Your task to perform on an android device: Clear all items from cart on bestbuy. Search for acer nitro on bestbuy, select the first entry, and add it to the cart. Image 0: 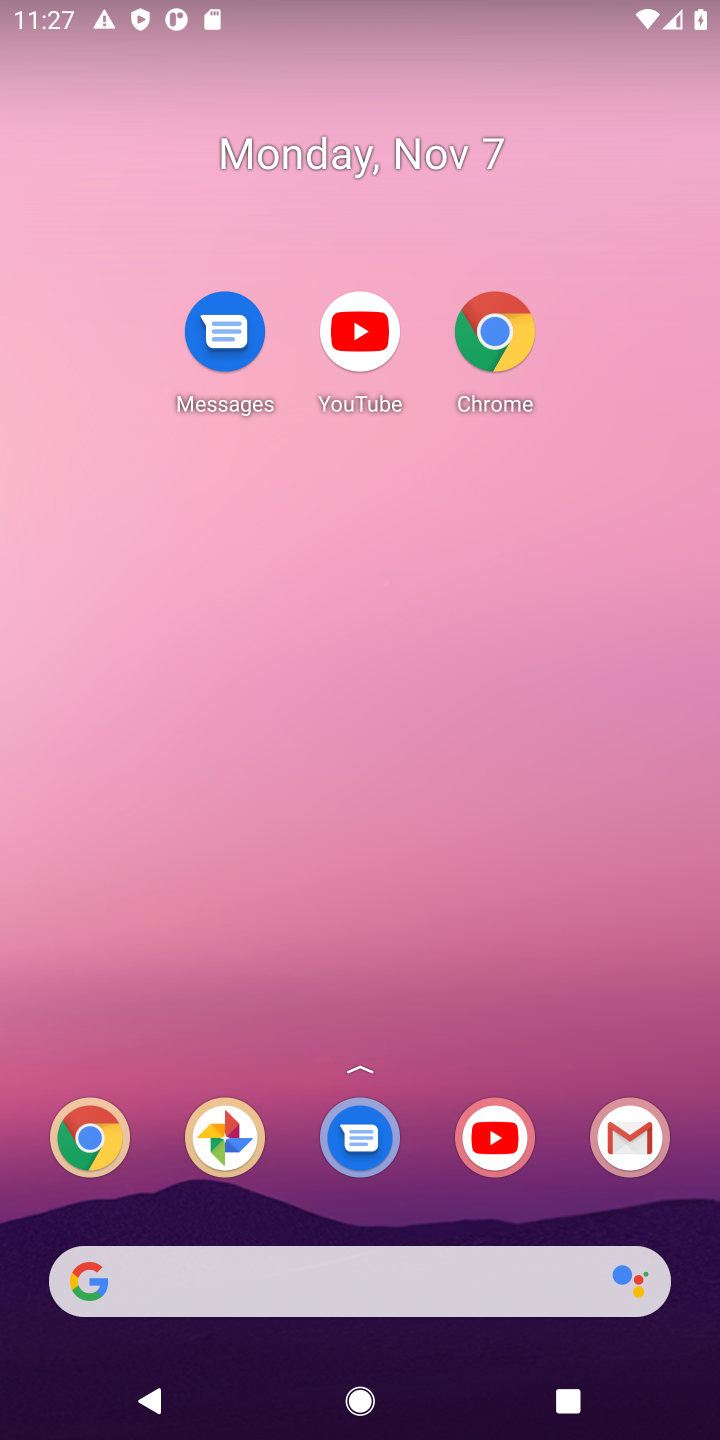
Step 0: drag from (432, 1161) to (385, 235)
Your task to perform on an android device: Clear all items from cart on bestbuy. Search for acer nitro on bestbuy, select the first entry, and add it to the cart. Image 1: 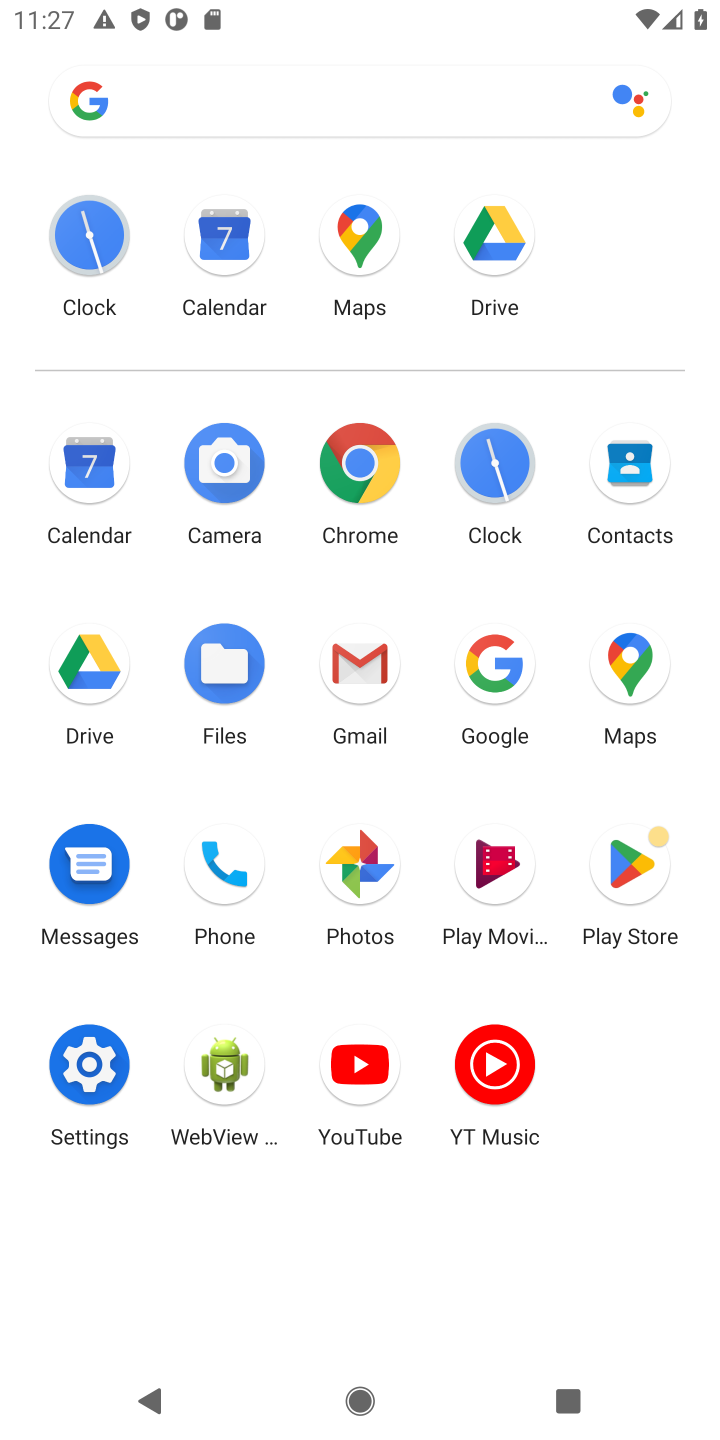
Step 1: click (367, 467)
Your task to perform on an android device: Clear all items from cart on bestbuy. Search for acer nitro on bestbuy, select the first entry, and add it to the cart. Image 2: 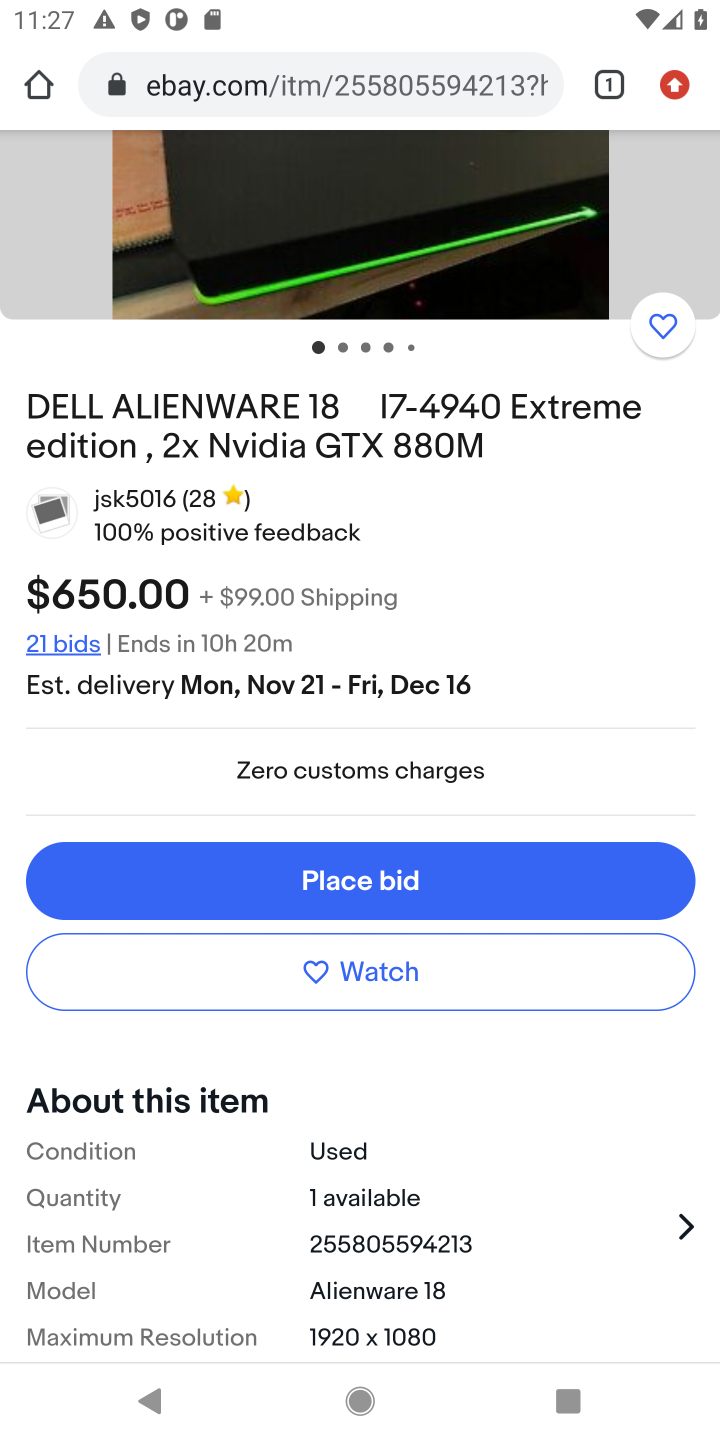
Step 2: click (423, 81)
Your task to perform on an android device: Clear all items from cart on bestbuy. Search for acer nitro on bestbuy, select the first entry, and add it to the cart. Image 3: 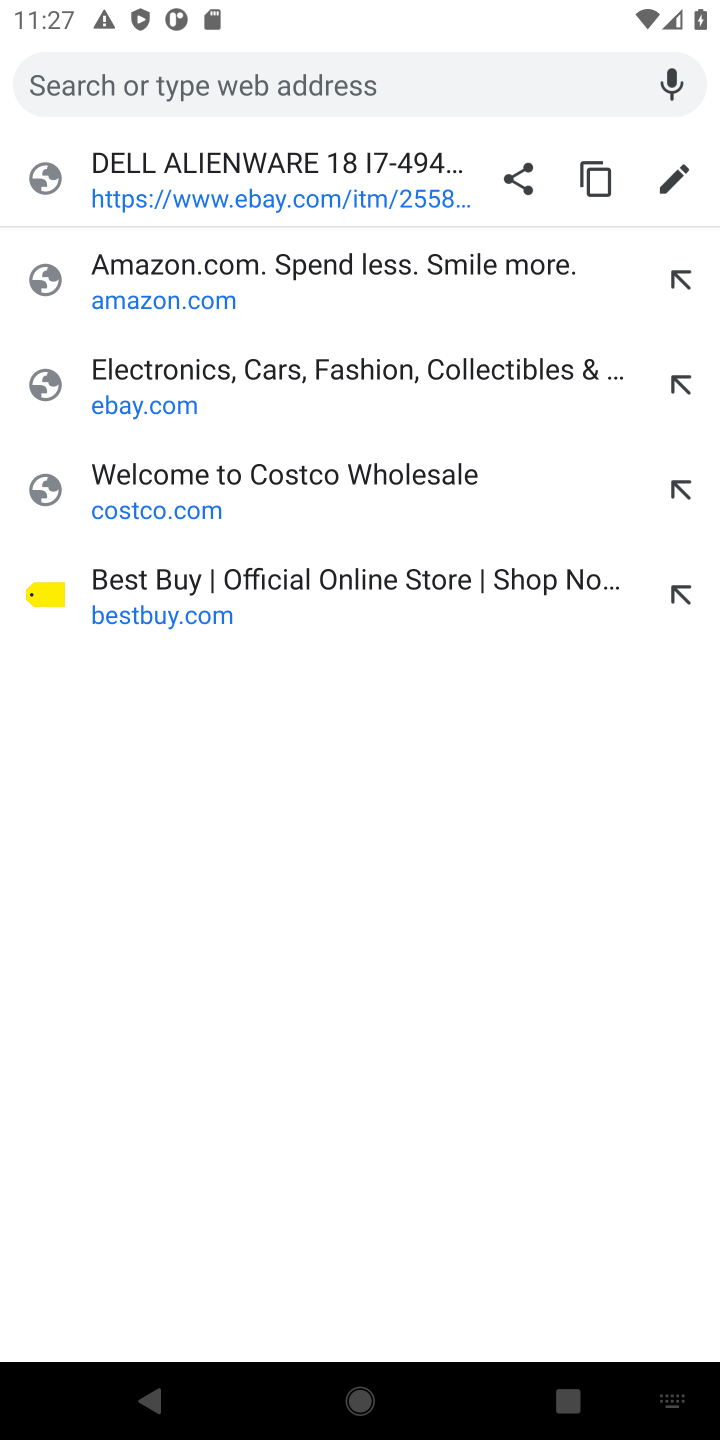
Step 3: type "bestbuy.com"
Your task to perform on an android device: Clear all items from cart on bestbuy. Search for acer nitro on bestbuy, select the first entry, and add it to the cart. Image 4: 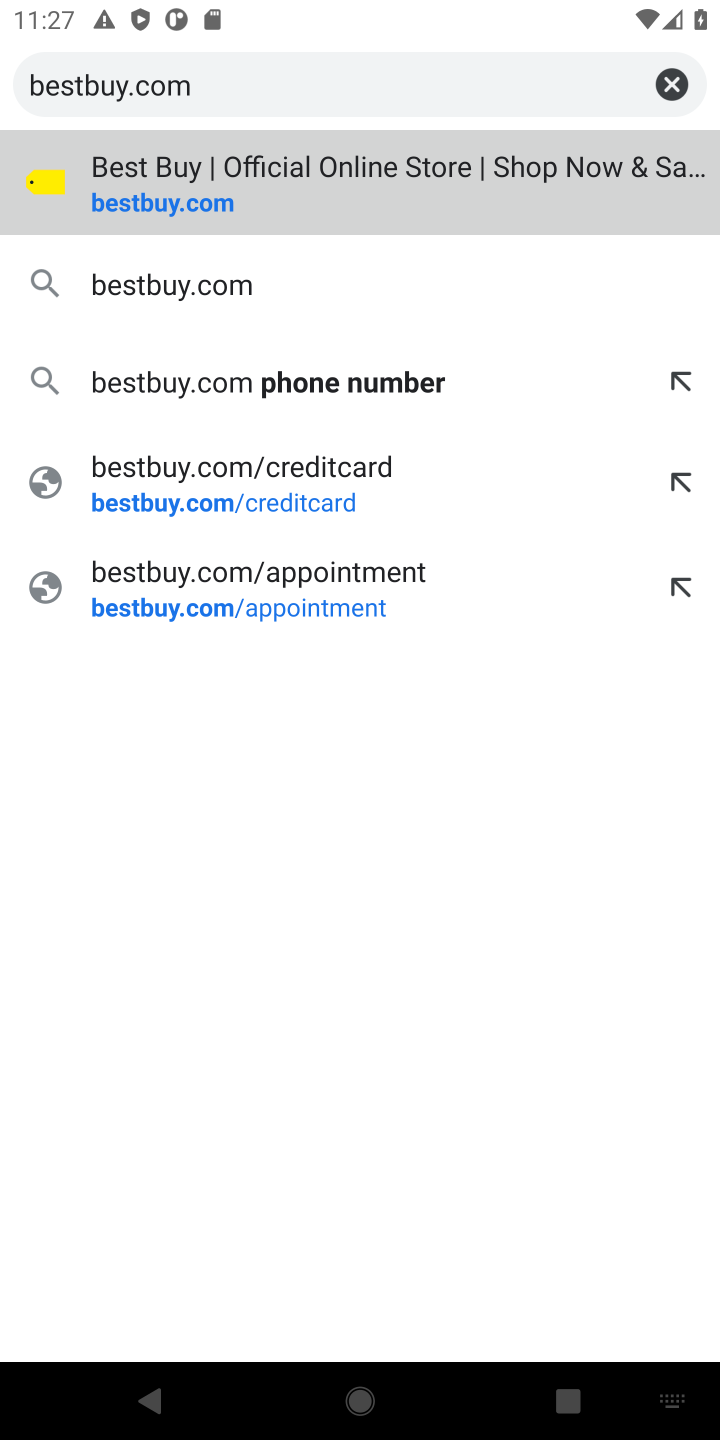
Step 4: press enter
Your task to perform on an android device: Clear all items from cart on bestbuy. Search for acer nitro on bestbuy, select the first entry, and add it to the cart. Image 5: 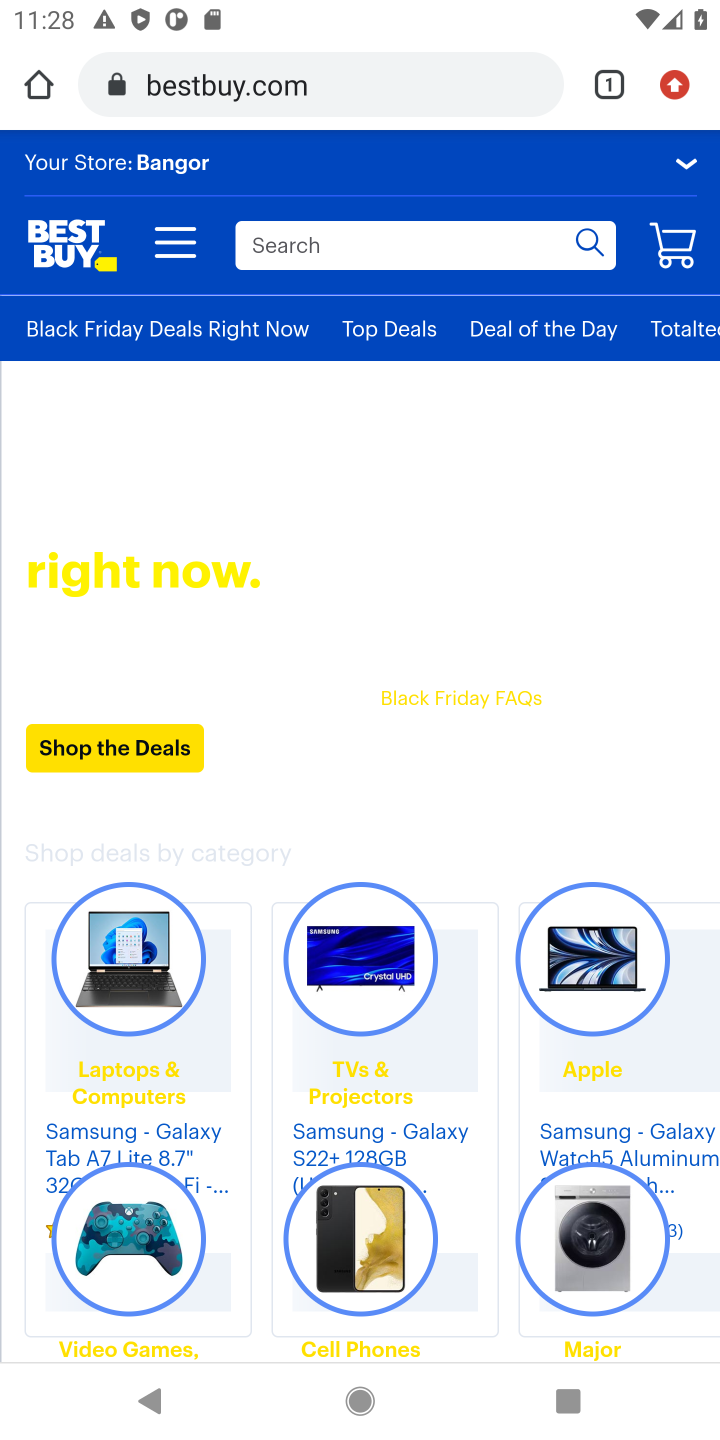
Step 5: click (683, 271)
Your task to perform on an android device: Clear all items from cart on bestbuy. Search for acer nitro on bestbuy, select the first entry, and add it to the cart. Image 6: 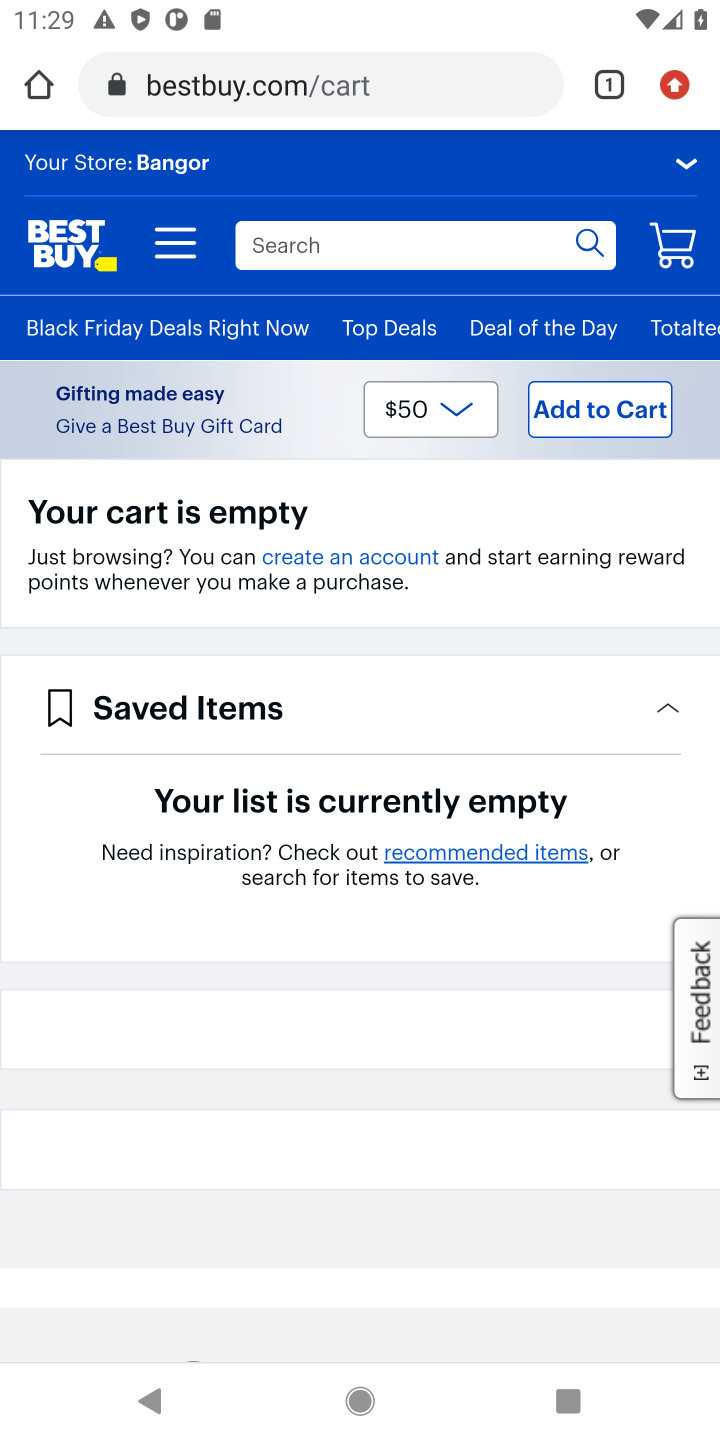
Step 6: click (479, 244)
Your task to perform on an android device: Clear all items from cart on bestbuy. Search for acer nitro on bestbuy, select the first entry, and add it to the cart. Image 7: 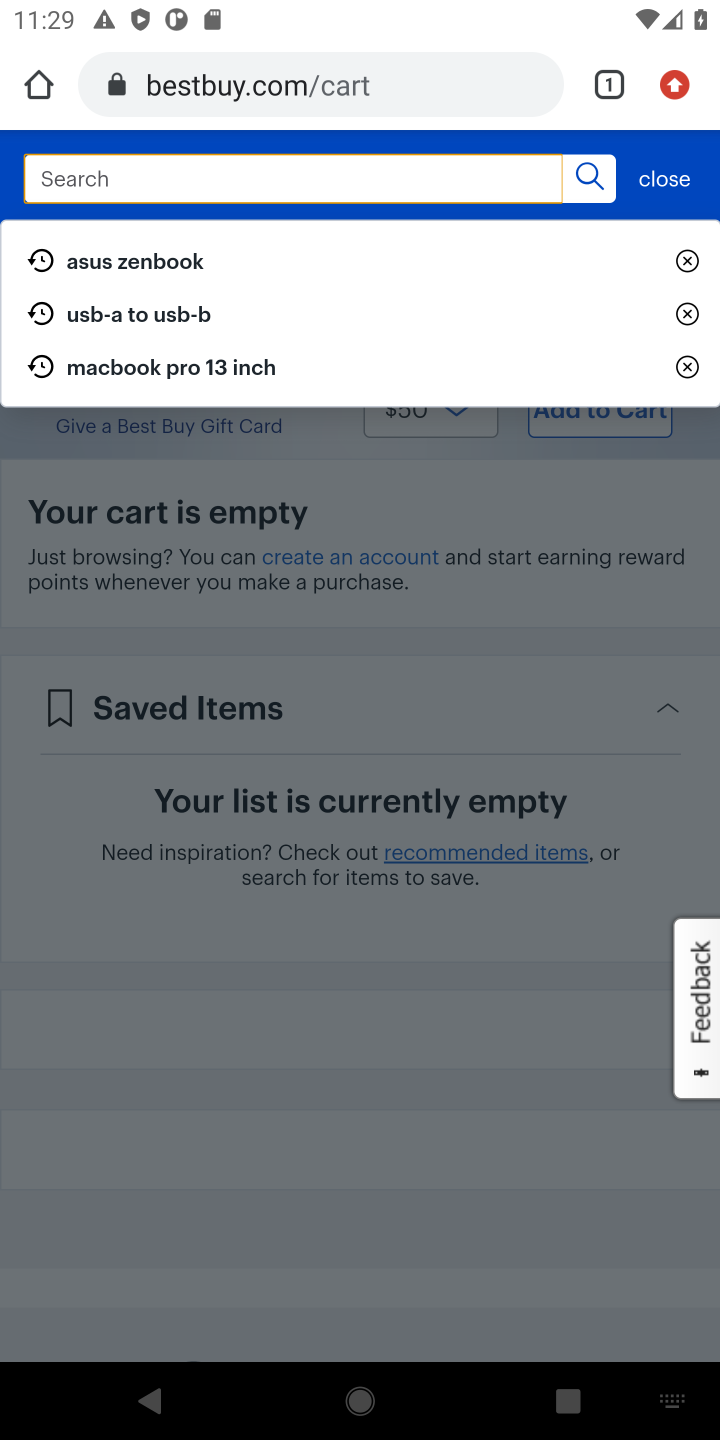
Step 7: type "acer nitro"
Your task to perform on an android device: Clear all items from cart on bestbuy. Search for acer nitro on bestbuy, select the first entry, and add it to the cart. Image 8: 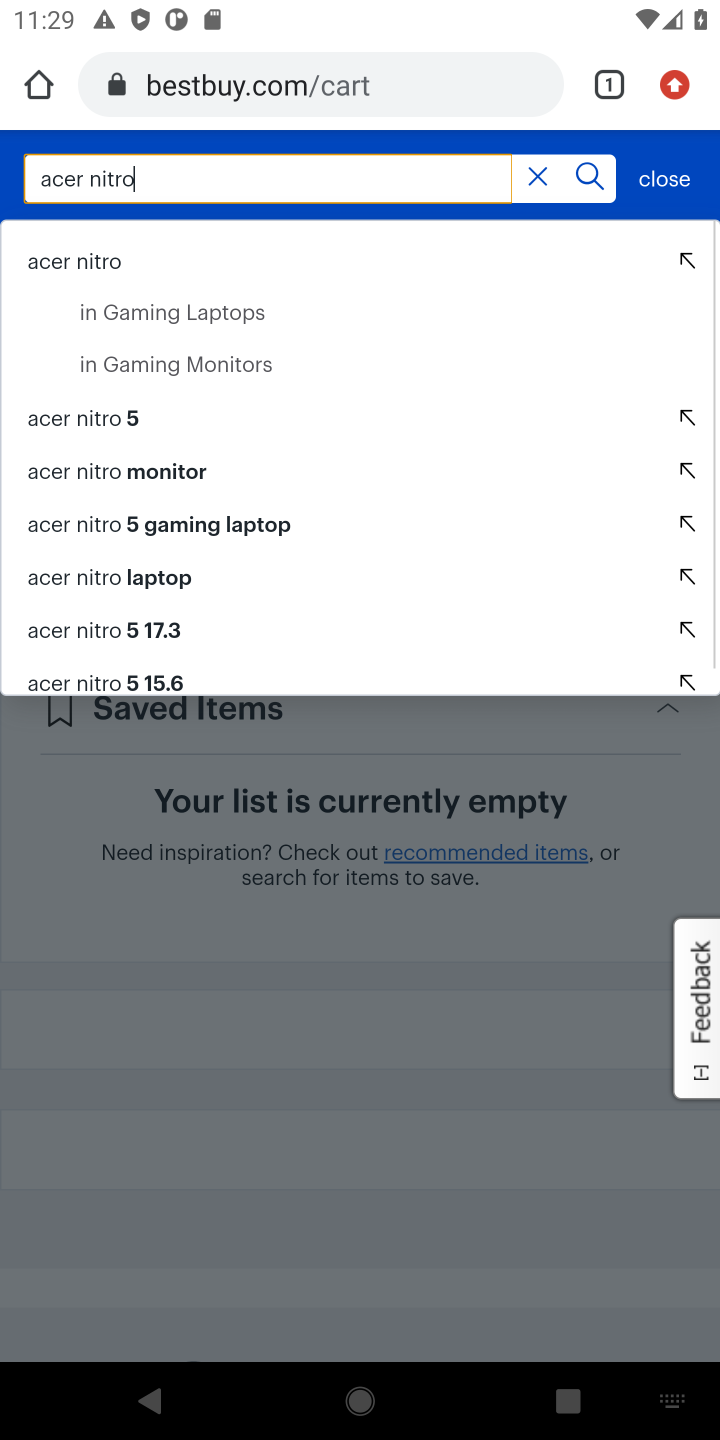
Step 8: press enter
Your task to perform on an android device: Clear all items from cart on bestbuy. Search for acer nitro on bestbuy, select the first entry, and add it to the cart. Image 9: 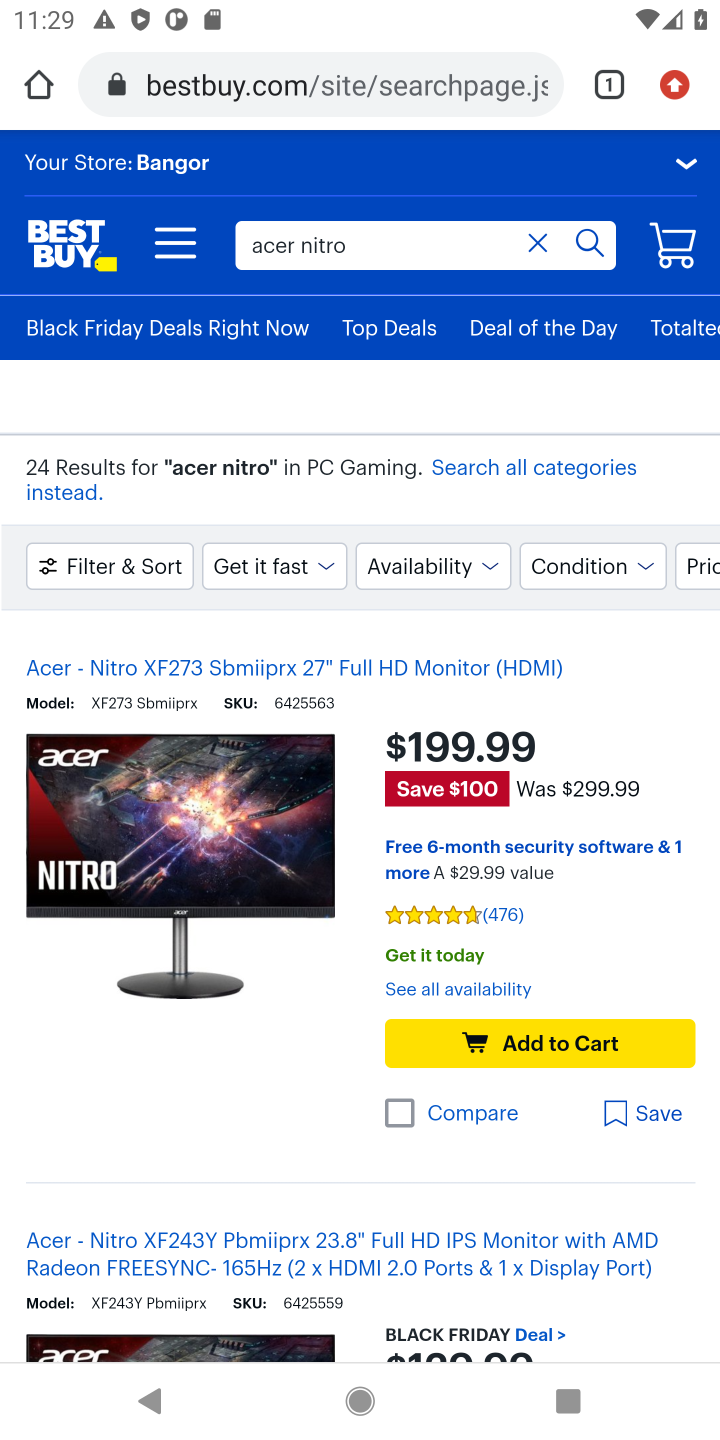
Step 9: drag from (309, 1144) to (352, 643)
Your task to perform on an android device: Clear all items from cart on bestbuy. Search for acer nitro on bestbuy, select the first entry, and add it to the cart. Image 10: 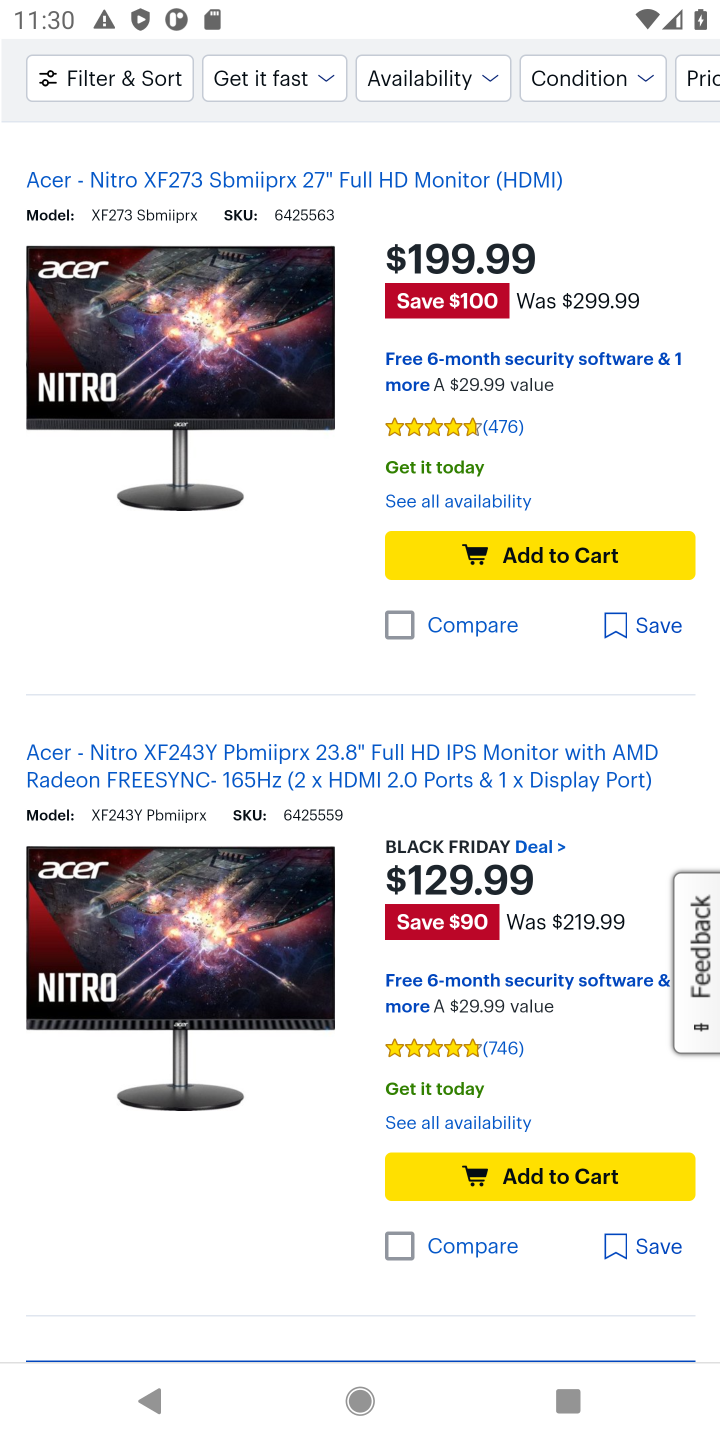
Step 10: drag from (309, 405) to (332, 744)
Your task to perform on an android device: Clear all items from cart on bestbuy. Search for acer nitro on bestbuy, select the first entry, and add it to the cart. Image 11: 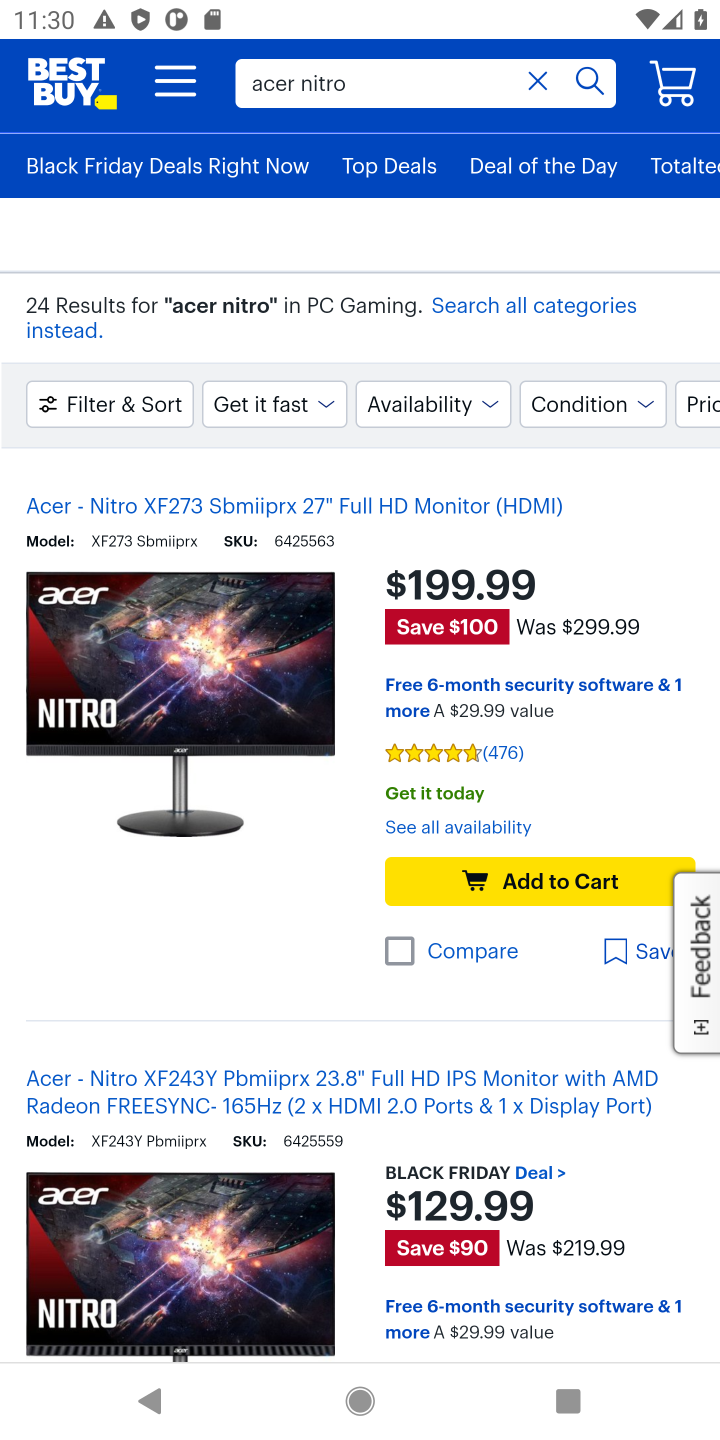
Step 11: click (518, 894)
Your task to perform on an android device: Clear all items from cart on bestbuy. Search for acer nitro on bestbuy, select the first entry, and add it to the cart. Image 12: 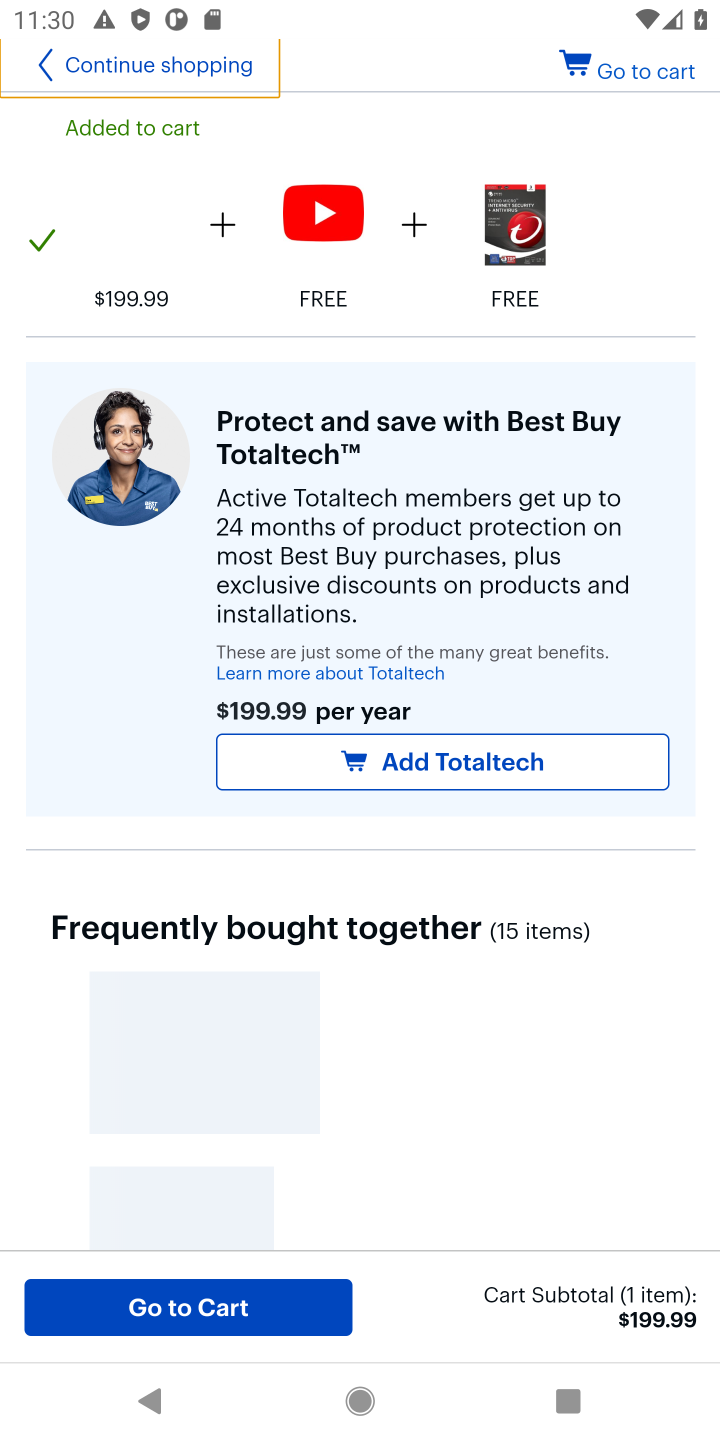
Step 12: task complete